Your task to perform on an android device: empty trash in the gmail app Image 0: 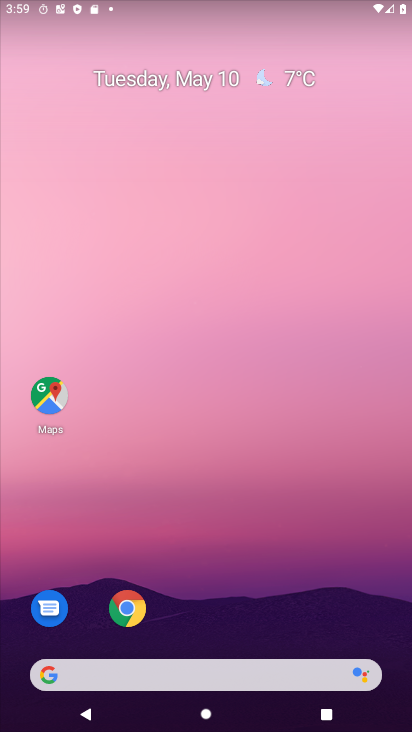
Step 0: drag from (344, 615) to (378, 37)
Your task to perform on an android device: empty trash in the gmail app Image 1: 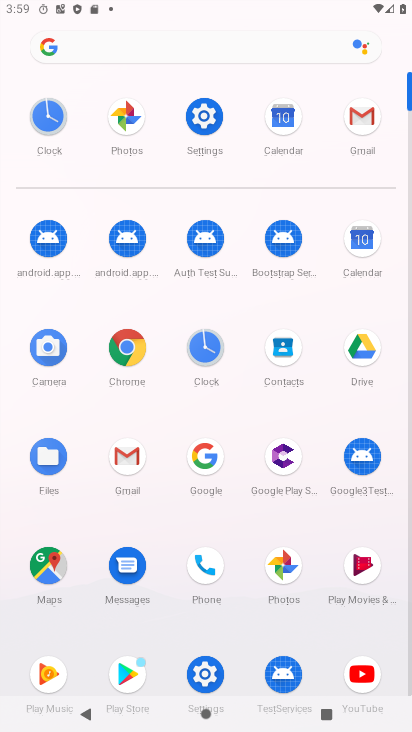
Step 1: click (359, 120)
Your task to perform on an android device: empty trash in the gmail app Image 2: 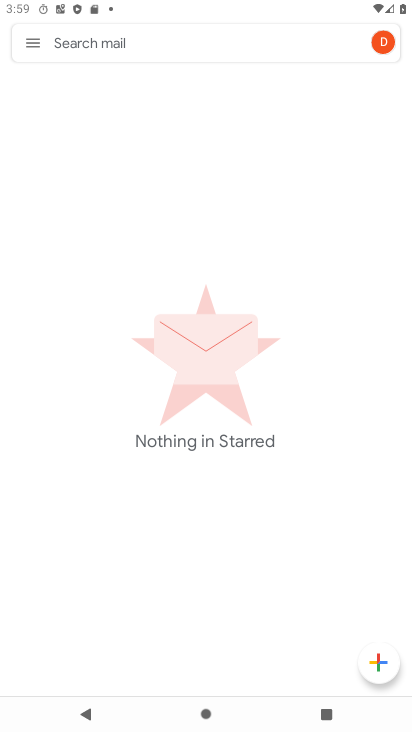
Step 2: click (34, 45)
Your task to perform on an android device: empty trash in the gmail app Image 3: 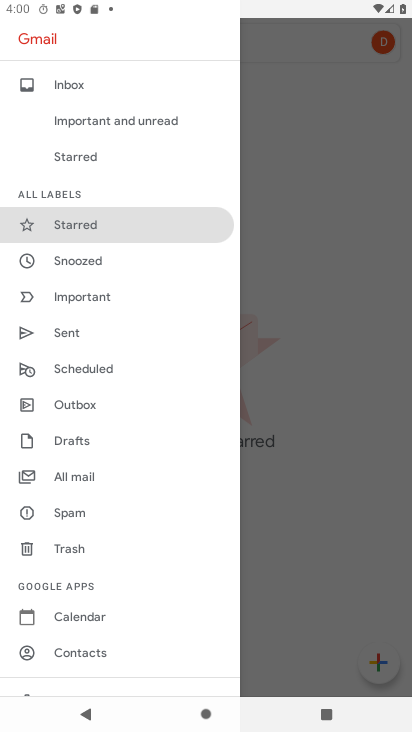
Step 3: click (72, 552)
Your task to perform on an android device: empty trash in the gmail app Image 4: 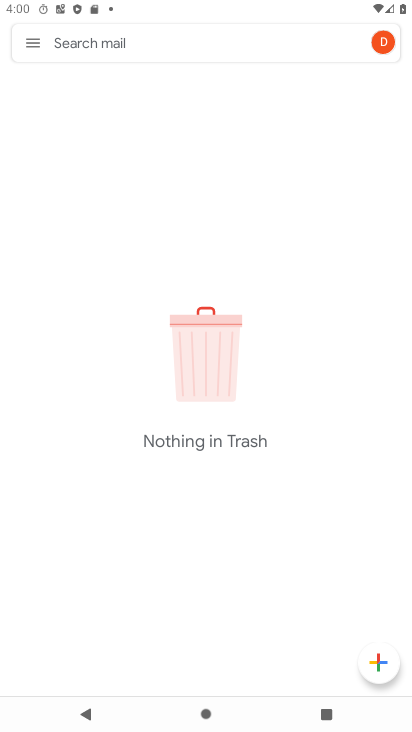
Step 4: task complete